Your task to perform on an android device: turn off airplane mode Image 0: 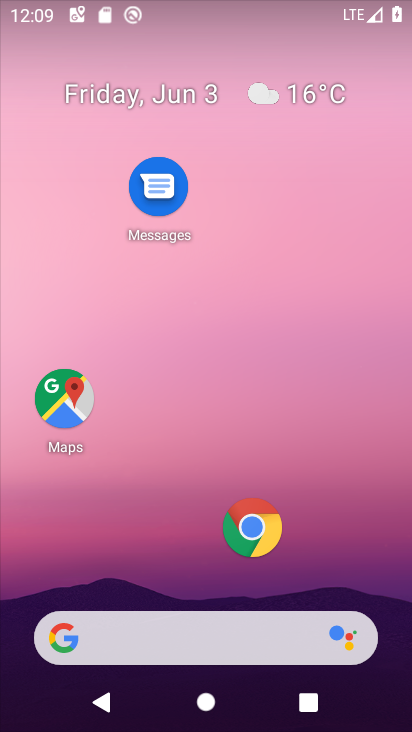
Step 0: press home button
Your task to perform on an android device: turn off airplane mode Image 1: 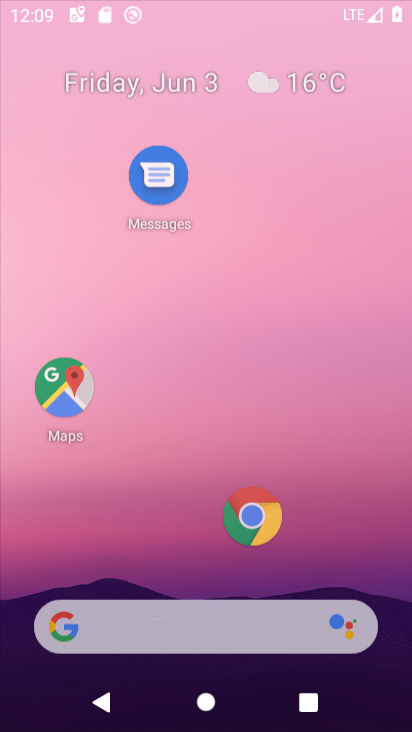
Step 1: click (253, 513)
Your task to perform on an android device: turn off airplane mode Image 2: 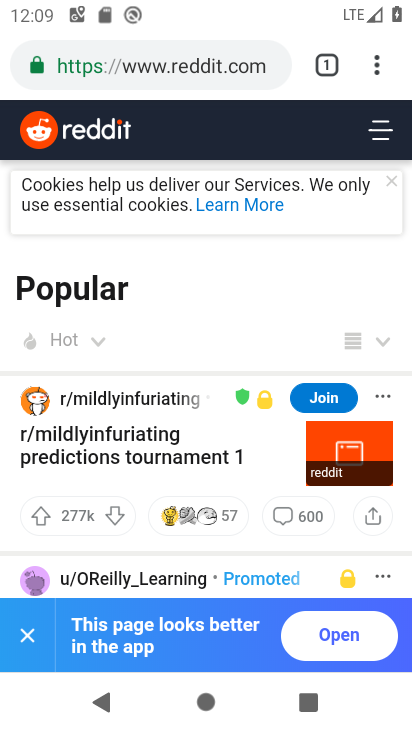
Step 2: task complete